Your task to perform on an android device: Go to location settings Image 0: 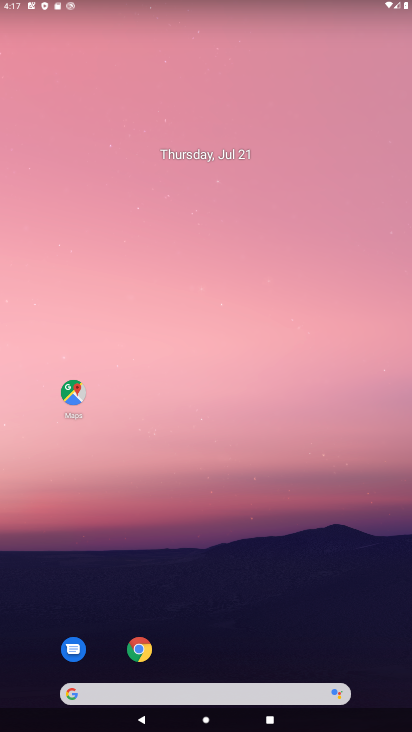
Step 0: drag from (166, 183) to (253, 7)
Your task to perform on an android device: Go to location settings Image 1: 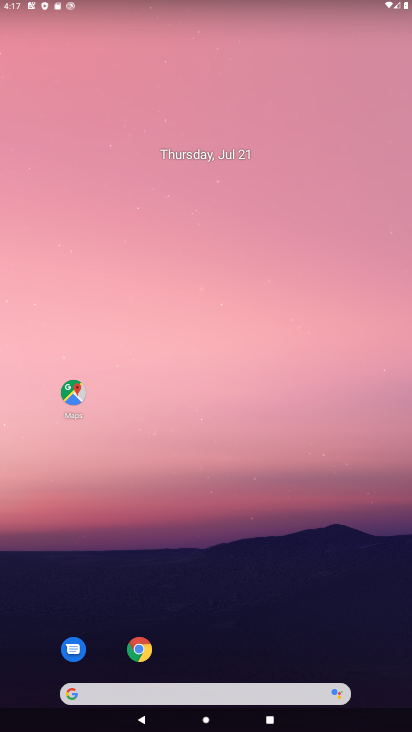
Step 1: drag from (205, 616) to (225, 43)
Your task to perform on an android device: Go to location settings Image 2: 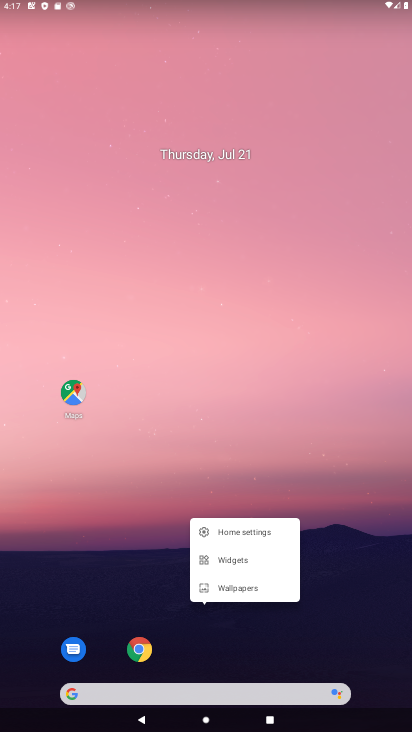
Step 2: click (184, 659)
Your task to perform on an android device: Go to location settings Image 3: 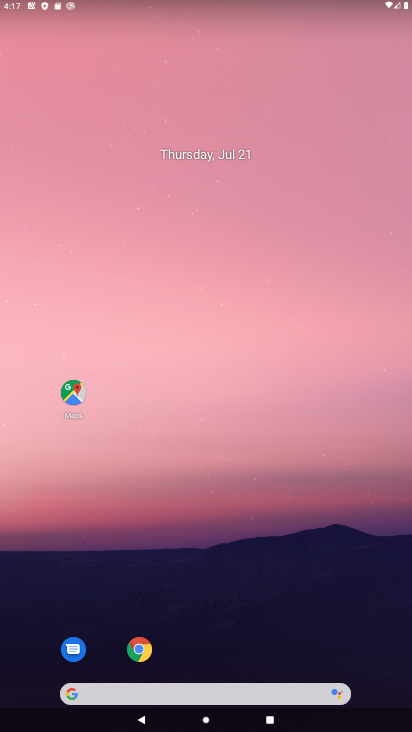
Step 3: drag from (192, 617) to (147, 107)
Your task to perform on an android device: Go to location settings Image 4: 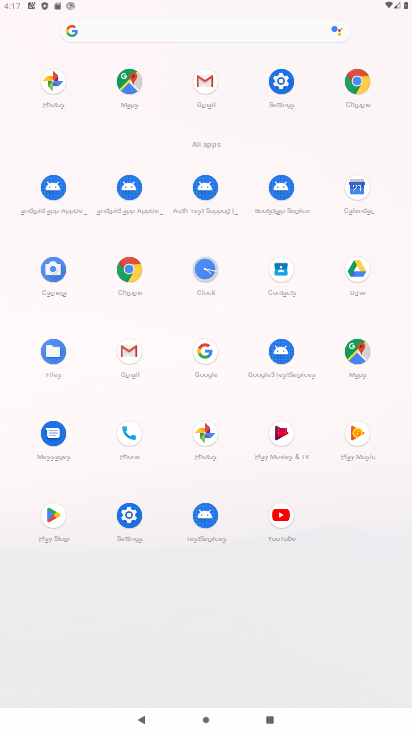
Step 4: drag from (216, 370) to (210, 185)
Your task to perform on an android device: Go to location settings Image 5: 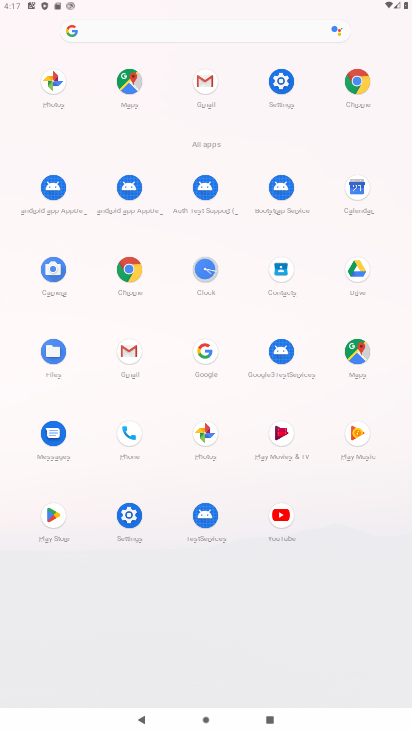
Step 5: click (271, 88)
Your task to perform on an android device: Go to location settings Image 6: 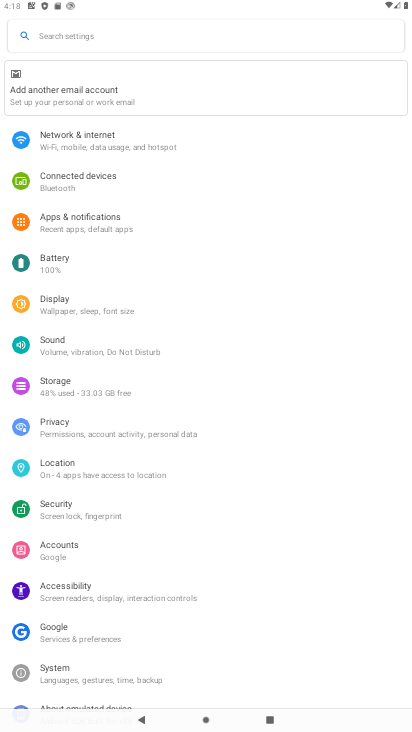
Step 6: click (84, 471)
Your task to perform on an android device: Go to location settings Image 7: 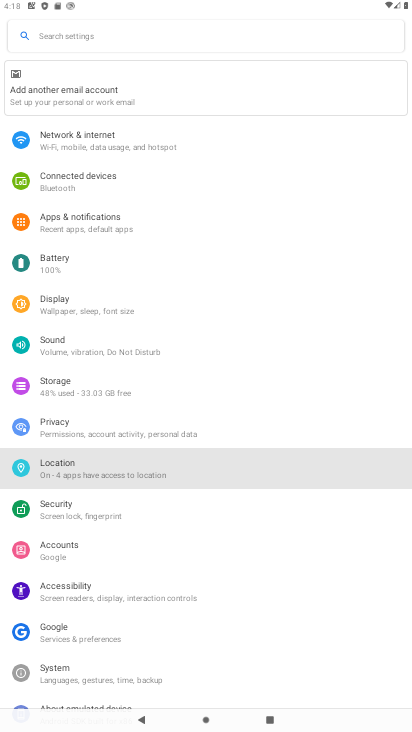
Step 7: click (84, 471)
Your task to perform on an android device: Go to location settings Image 8: 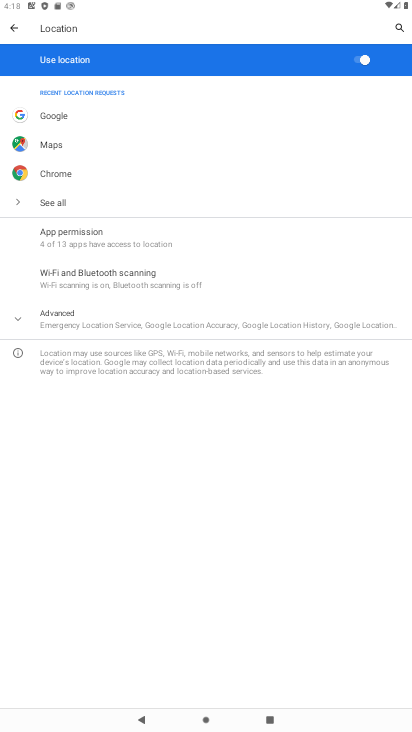
Step 8: task complete